Your task to perform on an android device: Open the map Image 0: 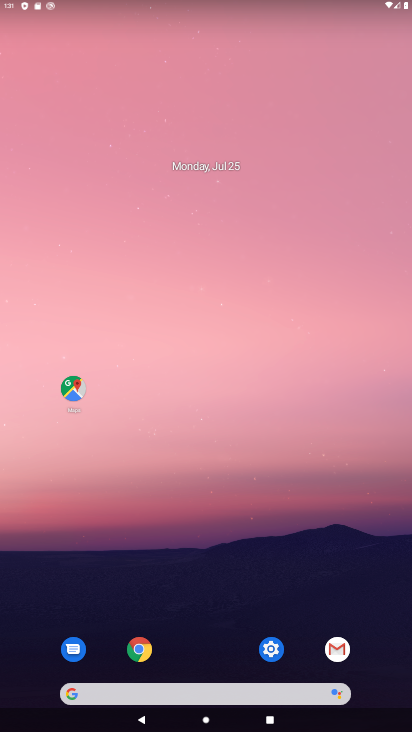
Step 0: click (64, 394)
Your task to perform on an android device: Open the map Image 1: 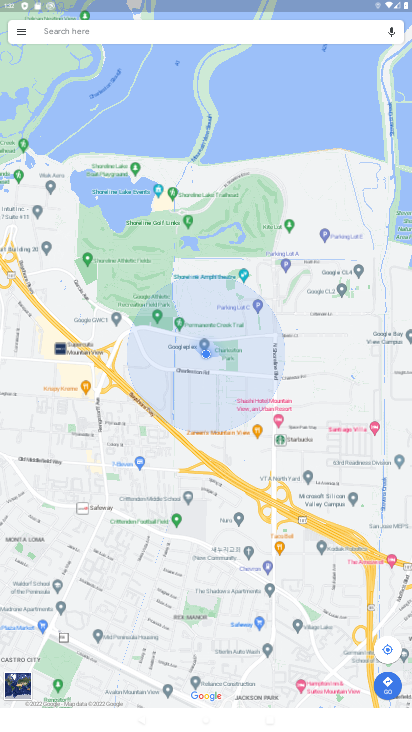
Step 1: click (393, 647)
Your task to perform on an android device: Open the map Image 2: 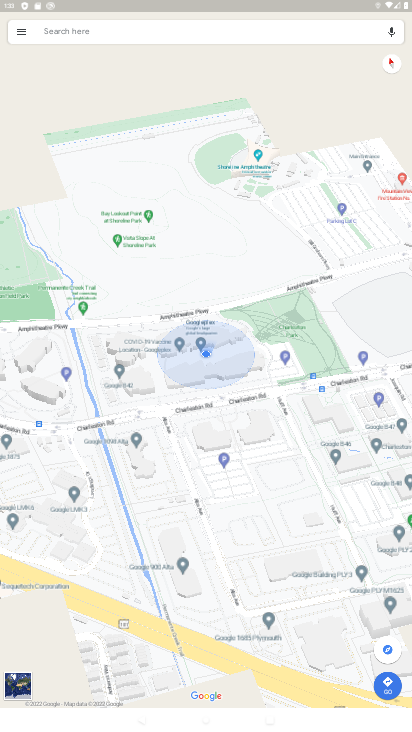
Step 2: click (381, 650)
Your task to perform on an android device: Open the map Image 3: 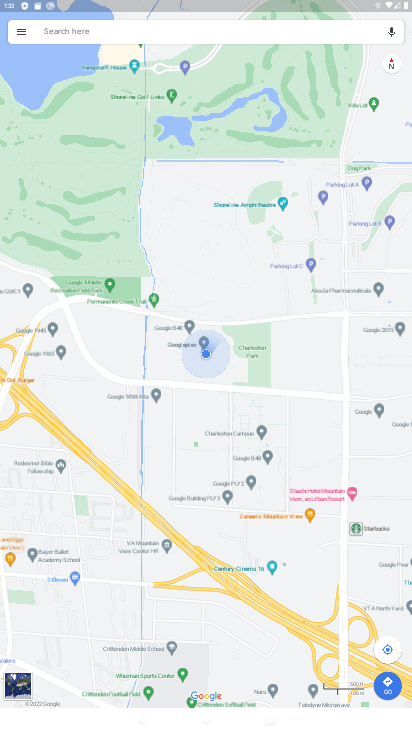
Step 3: task complete